Your task to perform on an android device: empty trash in google photos Image 0: 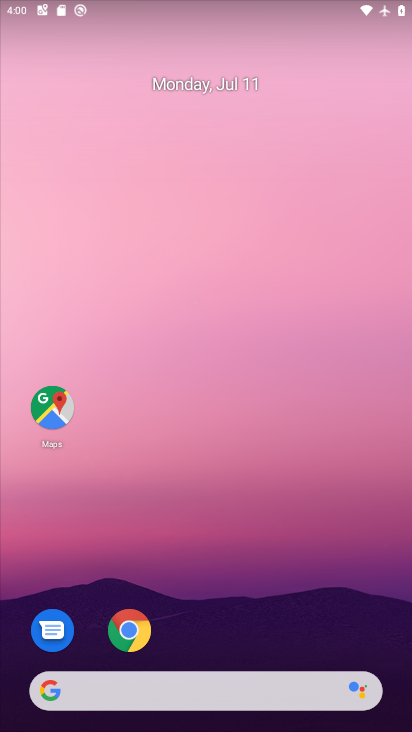
Step 0: drag from (190, 591) to (205, 149)
Your task to perform on an android device: empty trash in google photos Image 1: 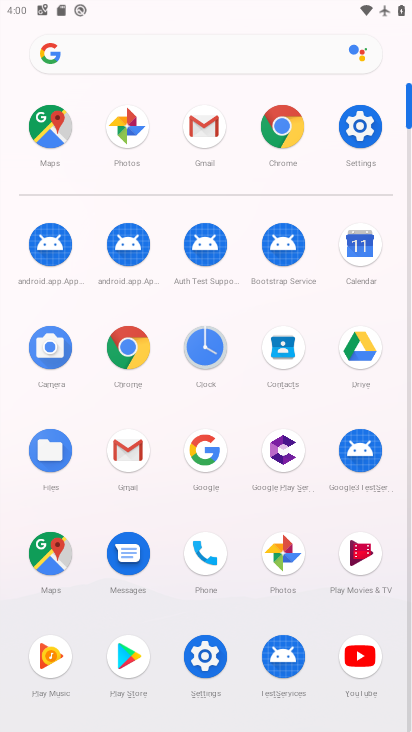
Step 1: click (118, 127)
Your task to perform on an android device: empty trash in google photos Image 2: 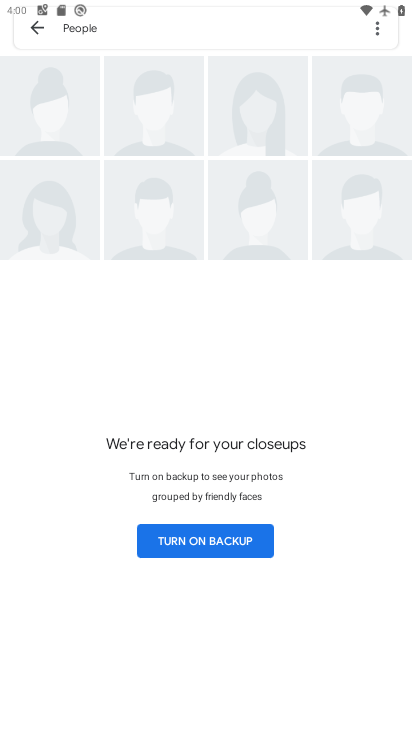
Step 2: click (36, 32)
Your task to perform on an android device: empty trash in google photos Image 3: 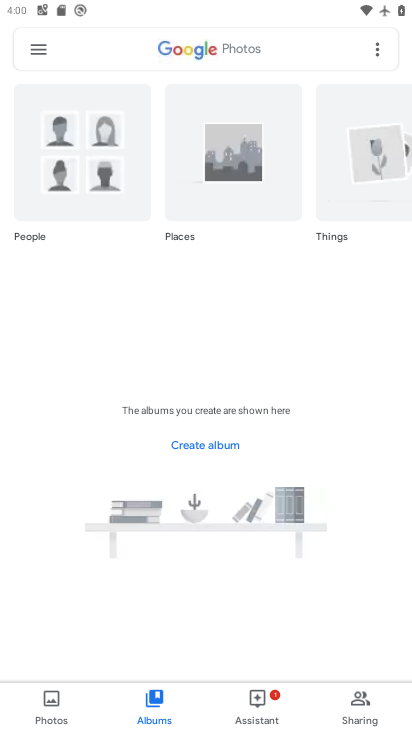
Step 3: click (20, 51)
Your task to perform on an android device: empty trash in google photos Image 4: 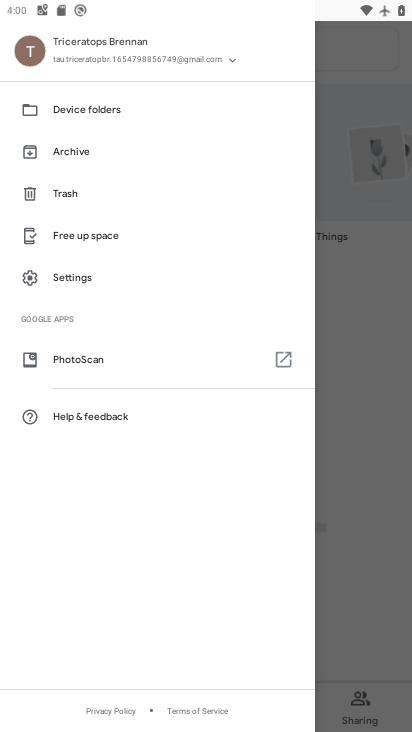
Step 4: click (54, 189)
Your task to perform on an android device: empty trash in google photos Image 5: 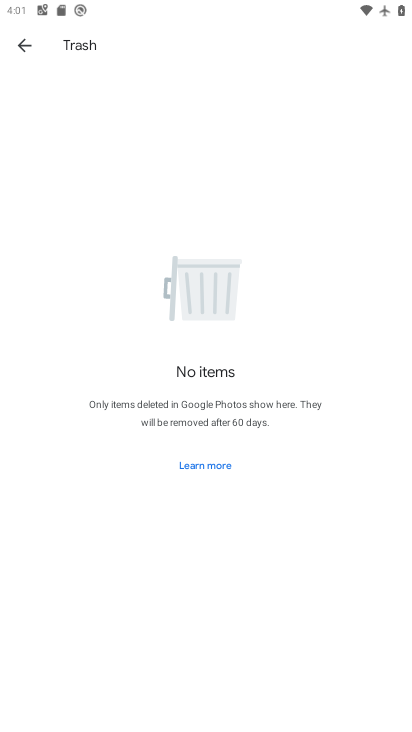
Step 5: task complete